Your task to perform on an android device: manage bookmarks in the chrome app Image 0: 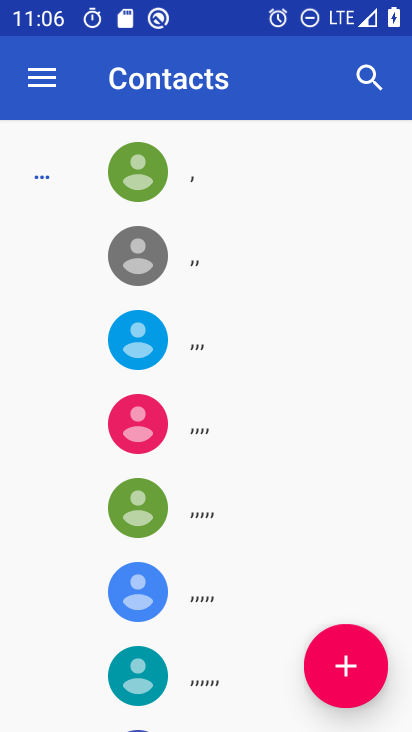
Step 0: press home button
Your task to perform on an android device: manage bookmarks in the chrome app Image 1: 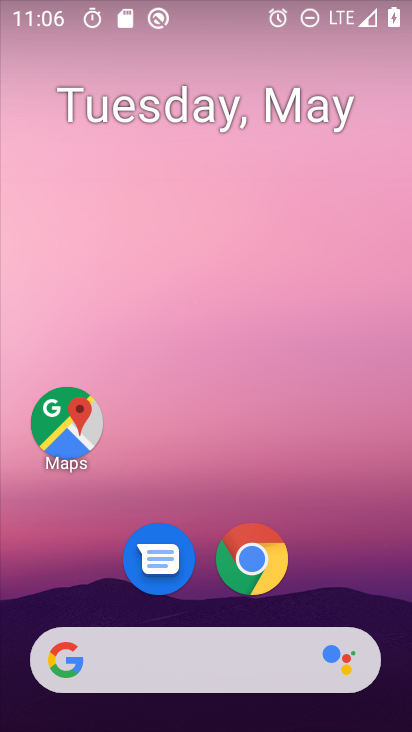
Step 1: drag from (399, 661) to (313, 128)
Your task to perform on an android device: manage bookmarks in the chrome app Image 2: 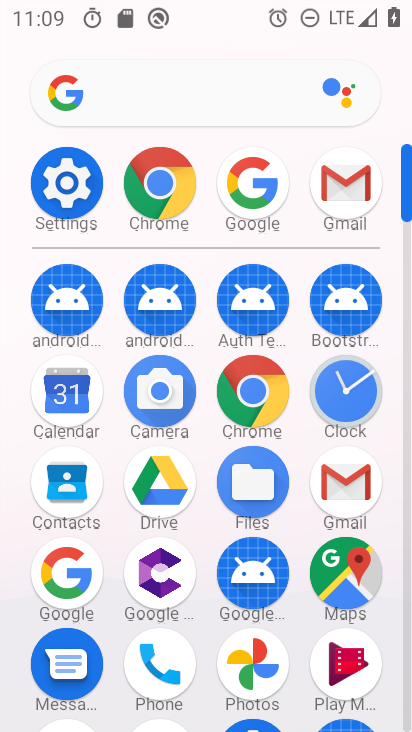
Step 2: click (237, 416)
Your task to perform on an android device: manage bookmarks in the chrome app Image 3: 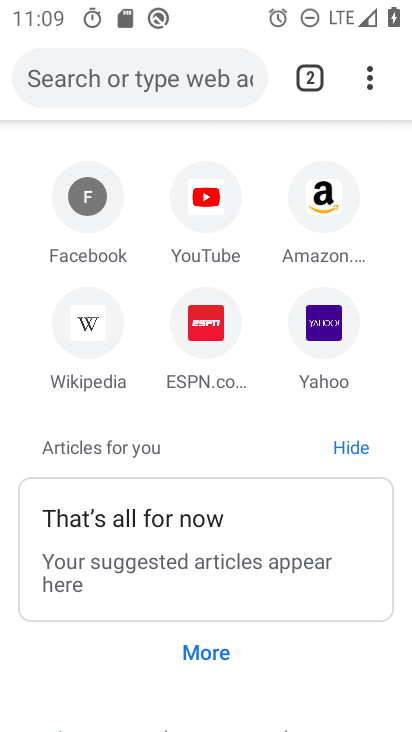
Step 3: task complete